Your task to perform on an android device: turn off location Image 0: 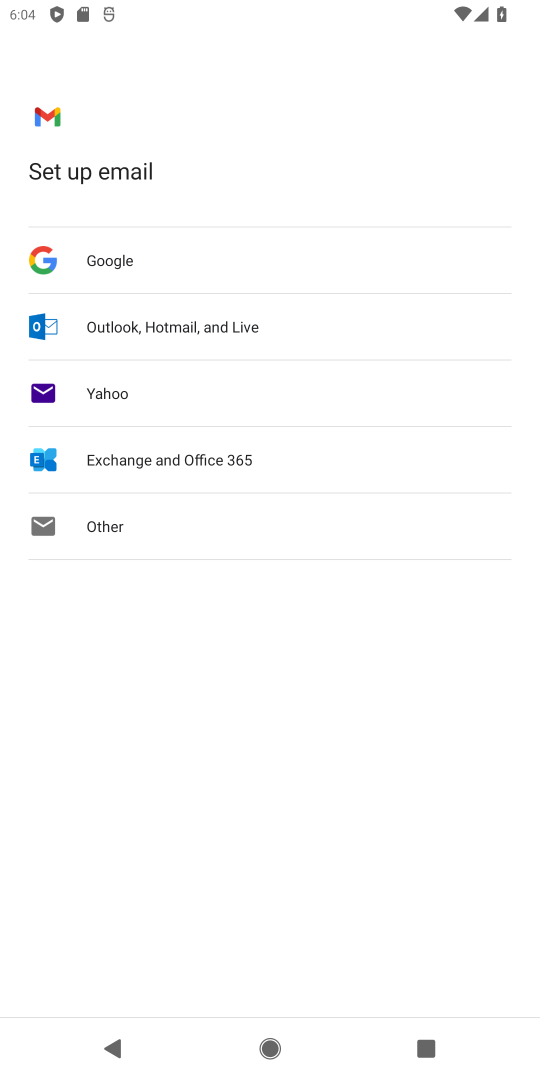
Step 0: press home button
Your task to perform on an android device: turn off location Image 1: 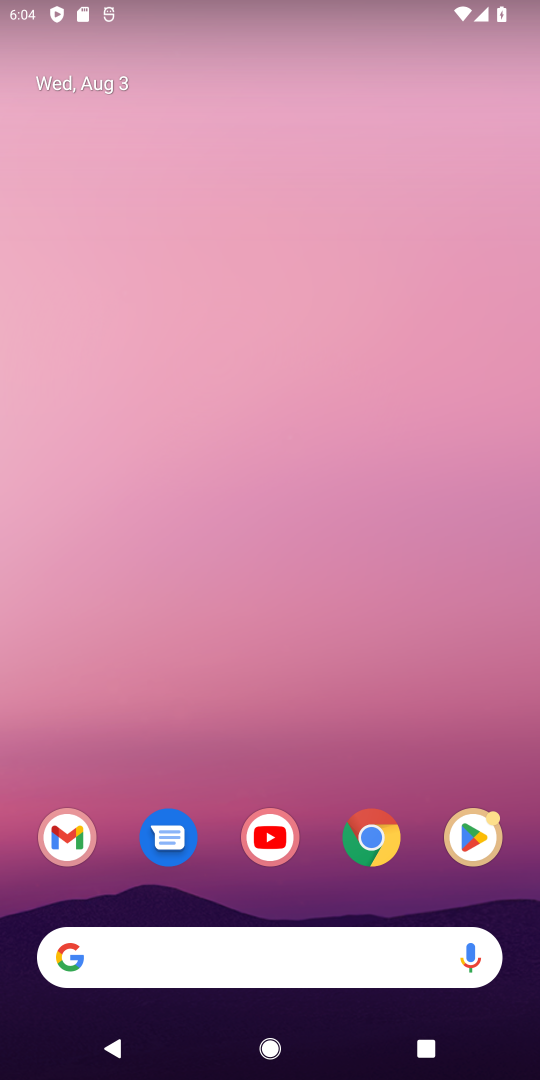
Step 1: drag from (277, 614) to (264, 2)
Your task to perform on an android device: turn off location Image 2: 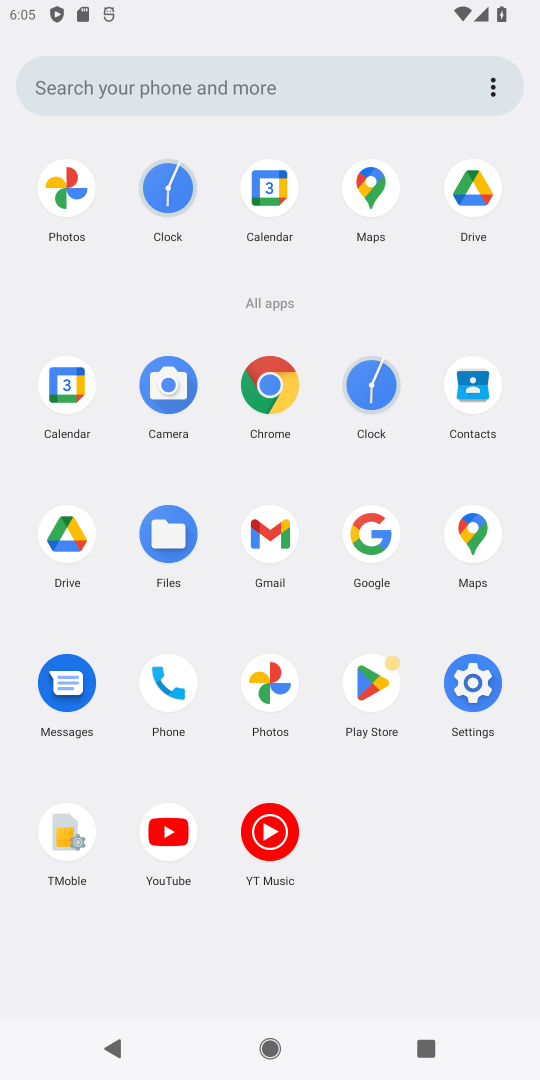
Step 2: click (453, 660)
Your task to perform on an android device: turn off location Image 3: 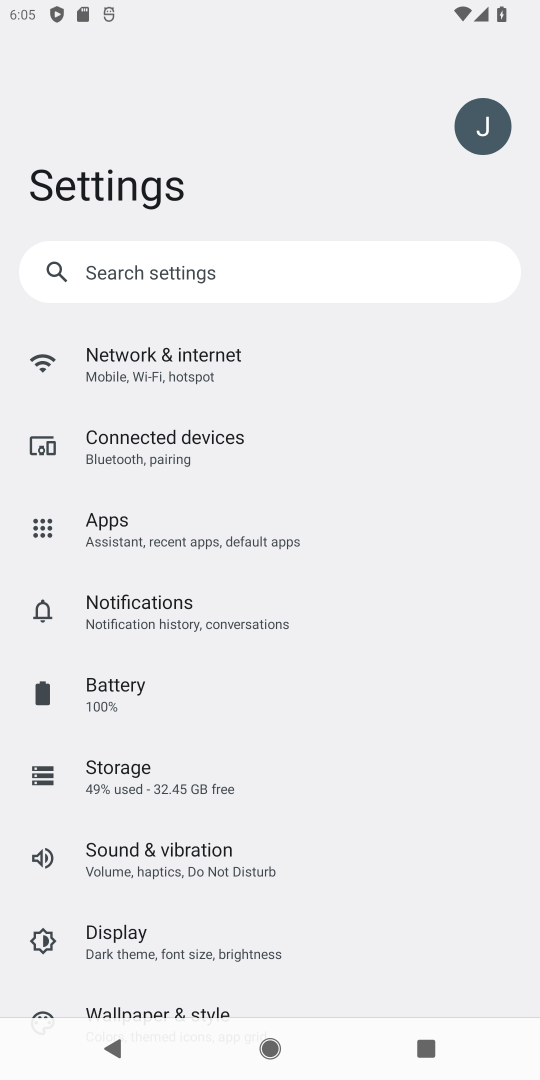
Step 3: drag from (178, 922) to (204, 492)
Your task to perform on an android device: turn off location Image 4: 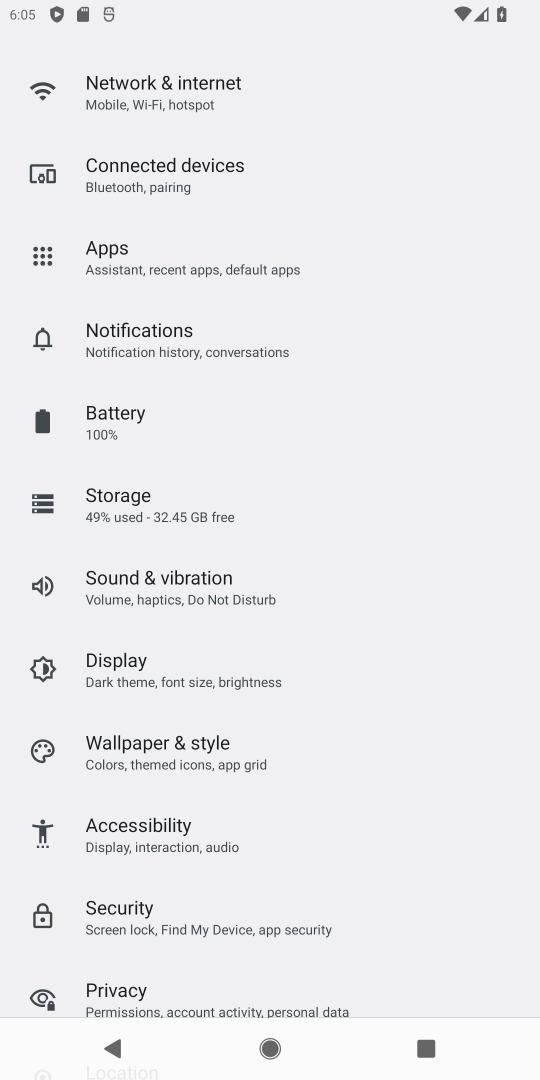
Step 4: drag from (234, 946) to (243, 379)
Your task to perform on an android device: turn off location Image 5: 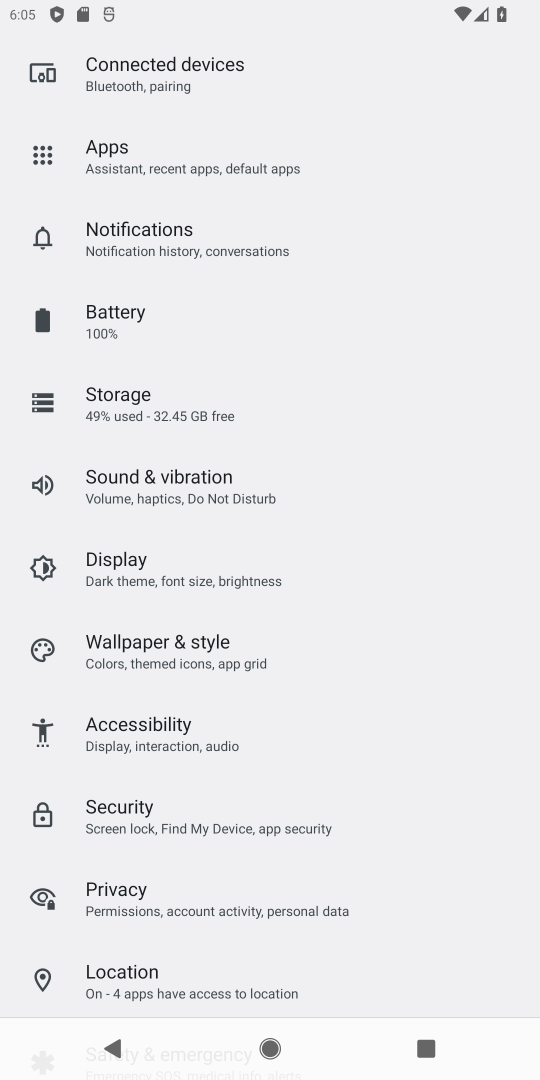
Step 5: click (122, 977)
Your task to perform on an android device: turn off location Image 6: 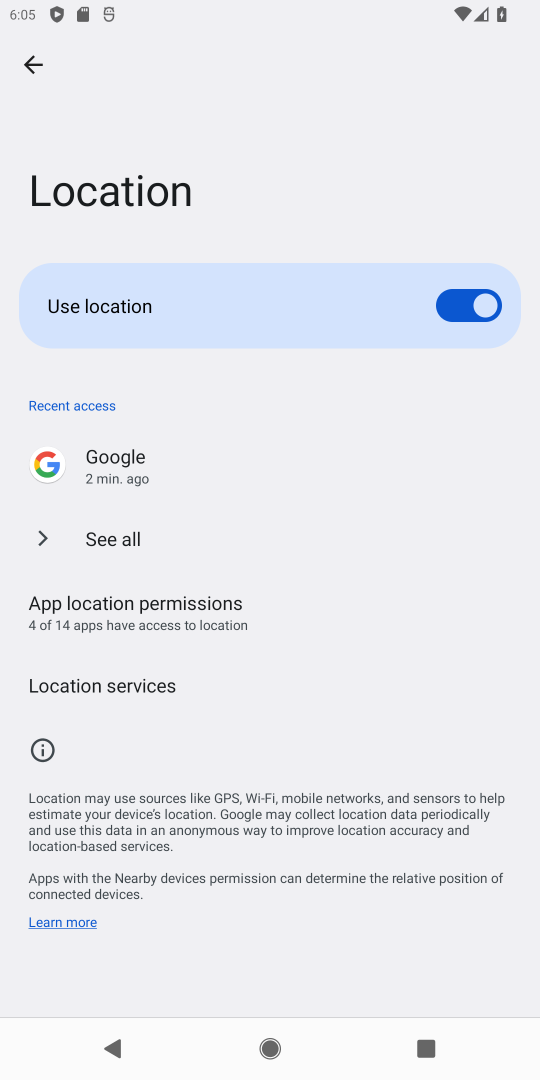
Step 6: click (463, 300)
Your task to perform on an android device: turn off location Image 7: 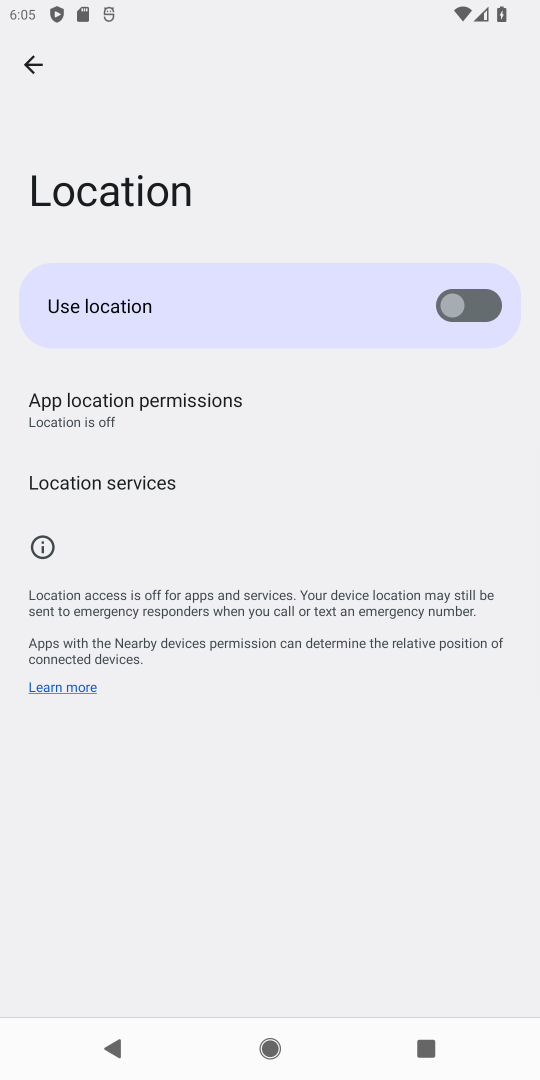
Step 7: task complete